Your task to perform on an android device: Open display settings Image 0: 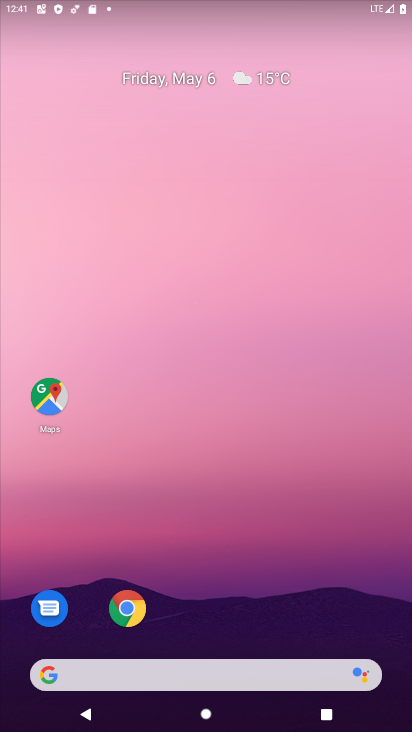
Step 0: drag from (213, 646) to (278, 132)
Your task to perform on an android device: Open display settings Image 1: 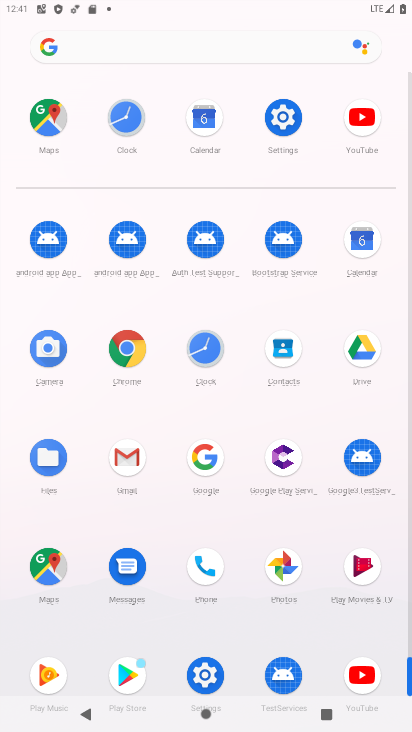
Step 1: click (198, 678)
Your task to perform on an android device: Open display settings Image 2: 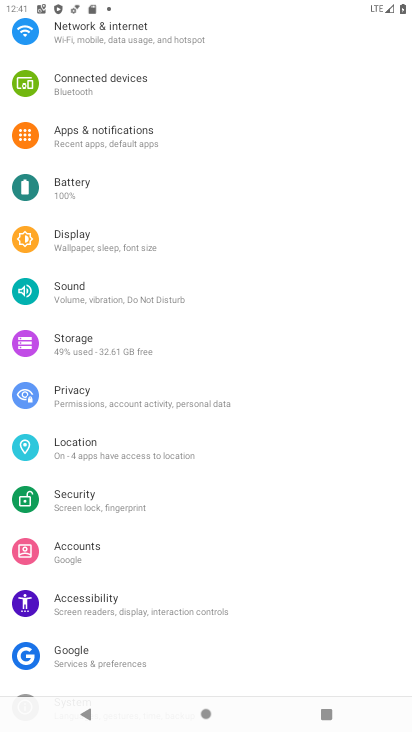
Step 2: drag from (221, 98) to (286, 638)
Your task to perform on an android device: Open display settings Image 3: 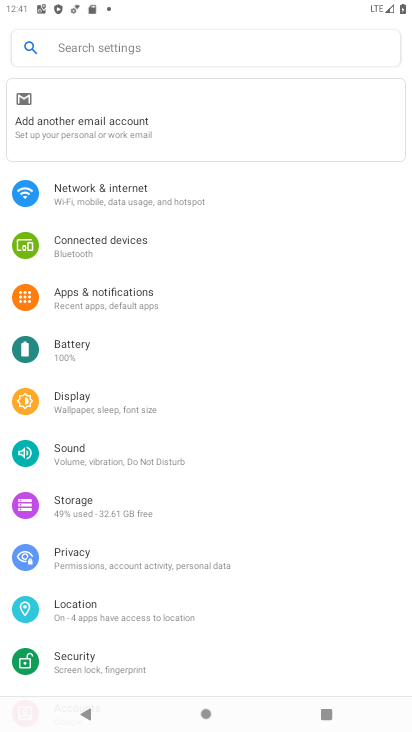
Step 3: click (83, 388)
Your task to perform on an android device: Open display settings Image 4: 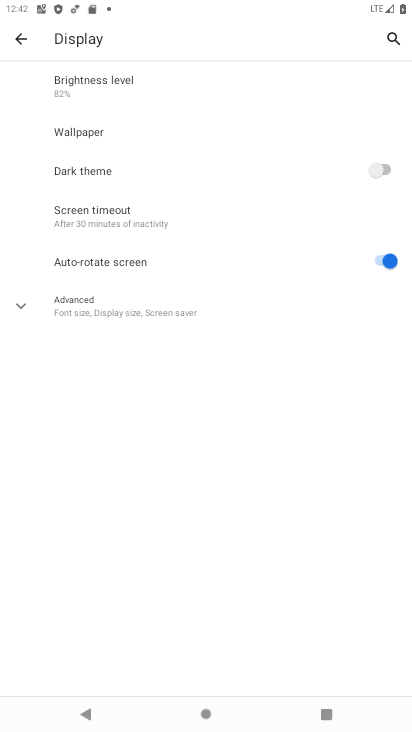
Step 4: task complete